Your task to perform on an android device: turn off wifi Image 0: 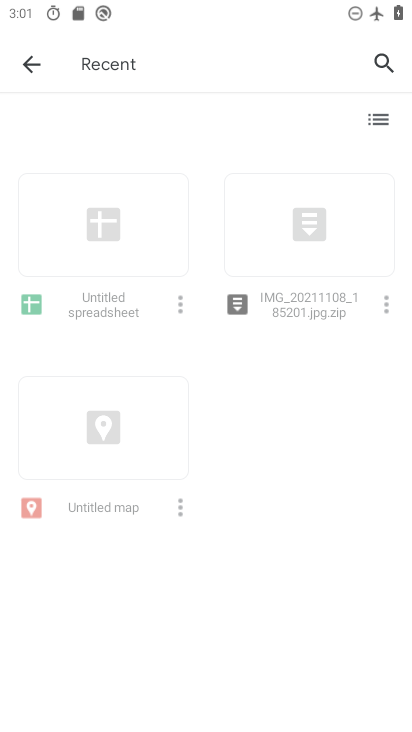
Step 0: press home button
Your task to perform on an android device: turn off wifi Image 1: 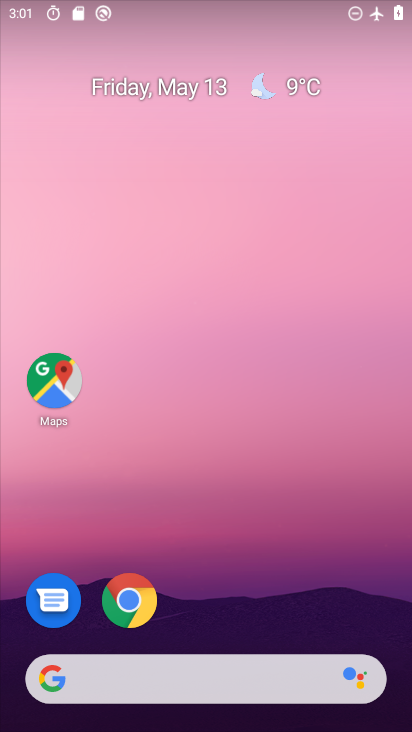
Step 1: drag from (209, 620) to (226, 167)
Your task to perform on an android device: turn off wifi Image 2: 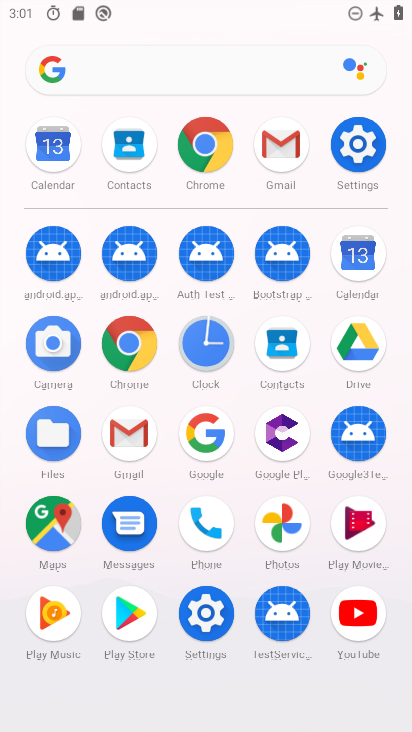
Step 2: click (360, 147)
Your task to perform on an android device: turn off wifi Image 3: 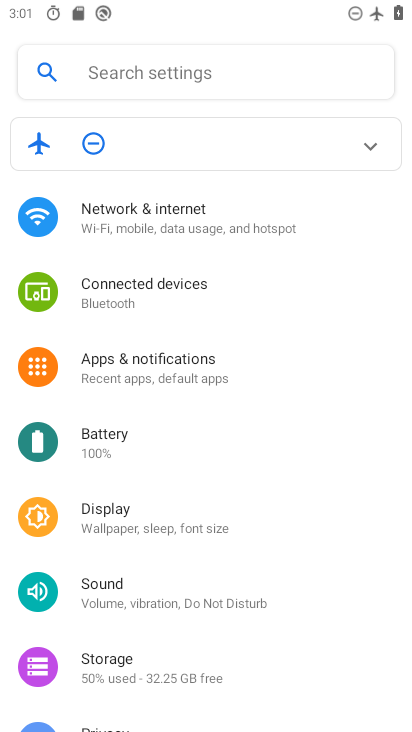
Step 3: click (132, 225)
Your task to perform on an android device: turn off wifi Image 4: 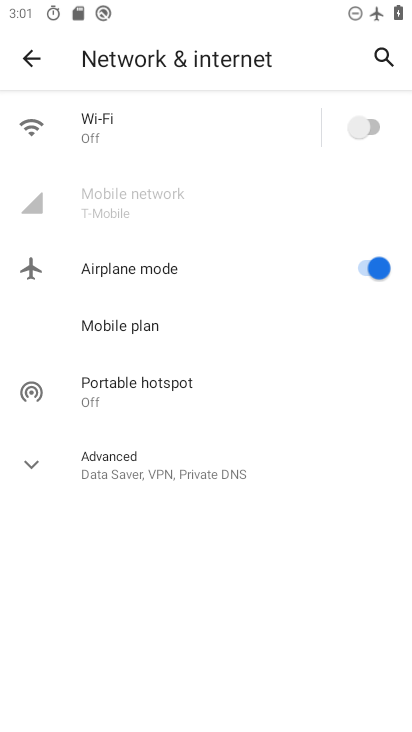
Step 4: click (175, 136)
Your task to perform on an android device: turn off wifi Image 5: 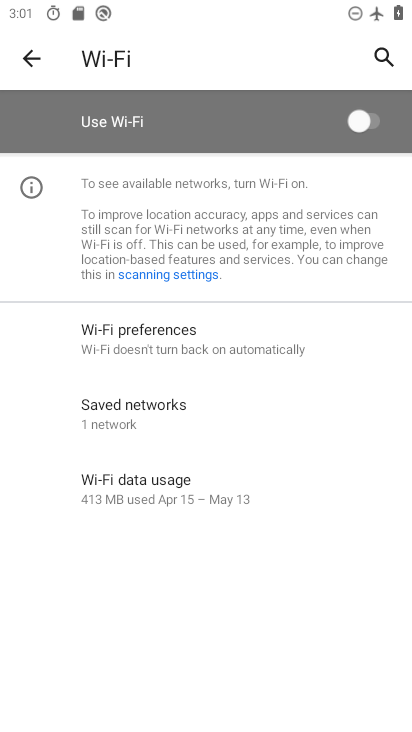
Step 5: task complete